Your task to perform on an android device: Open privacy settings Image 0: 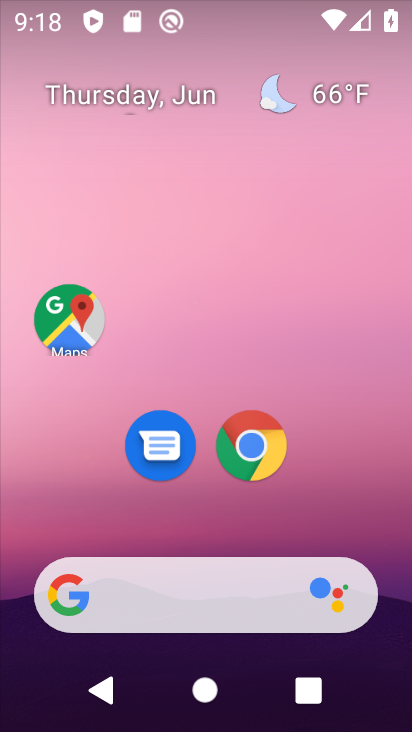
Step 0: drag from (189, 537) to (224, 1)
Your task to perform on an android device: Open privacy settings Image 1: 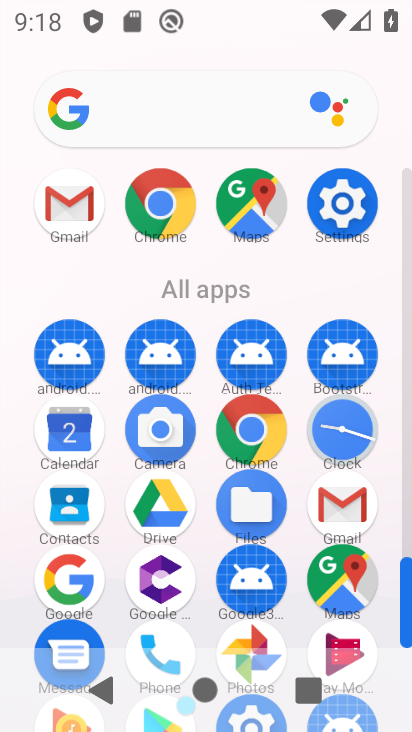
Step 1: click (350, 203)
Your task to perform on an android device: Open privacy settings Image 2: 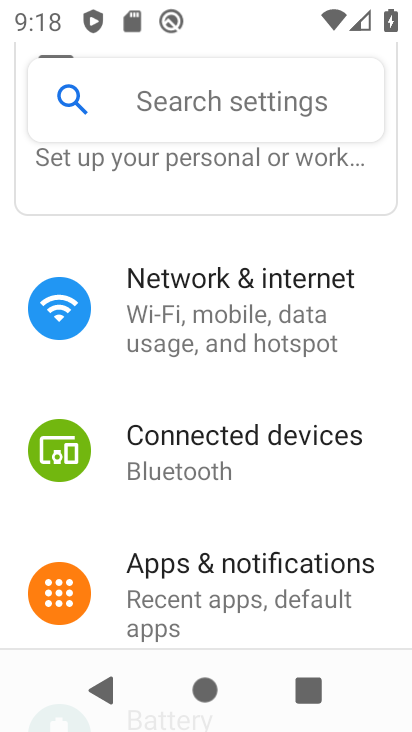
Step 2: drag from (258, 552) to (213, 301)
Your task to perform on an android device: Open privacy settings Image 3: 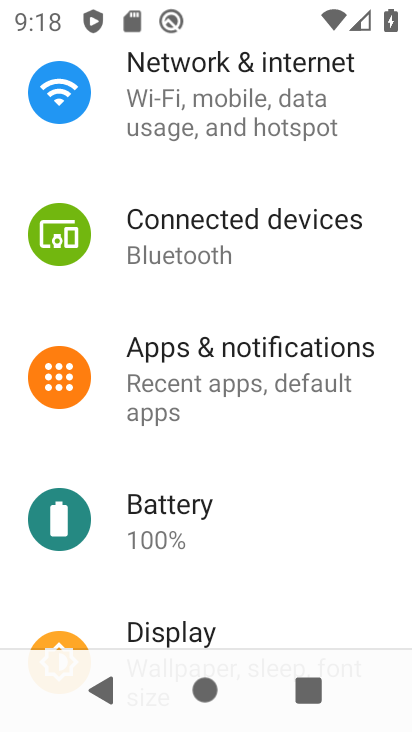
Step 3: drag from (231, 590) to (209, 274)
Your task to perform on an android device: Open privacy settings Image 4: 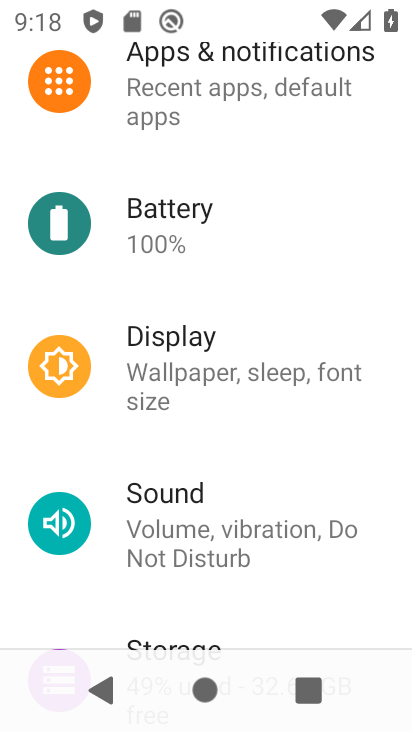
Step 4: drag from (217, 566) to (194, 412)
Your task to perform on an android device: Open privacy settings Image 5: 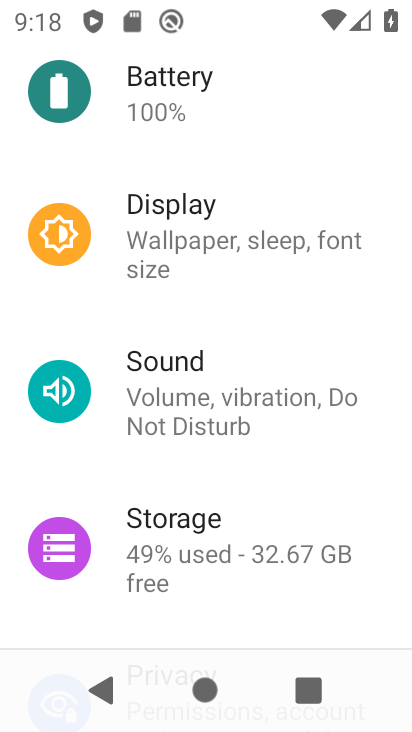
Step 5: drag from (150, 551) to (156, 313)
Your task to perform on an android device: Open privacy settings Image 6: 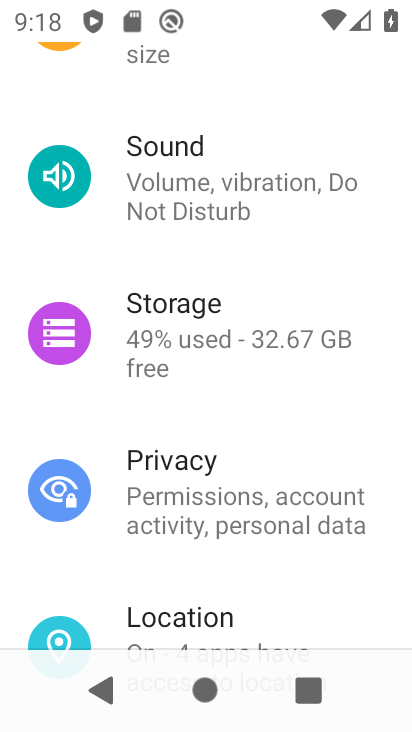
Step 6: drag from (169, 524) to (169, 318)
Your task to perform on an android device: Open privacy settings Image 7: 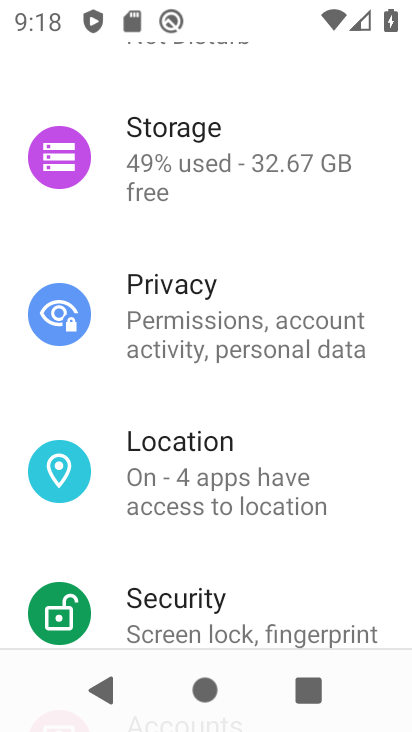
Step 7: click (160, 344)
Your task to perform on an android device: Open privacy settings Image 8: 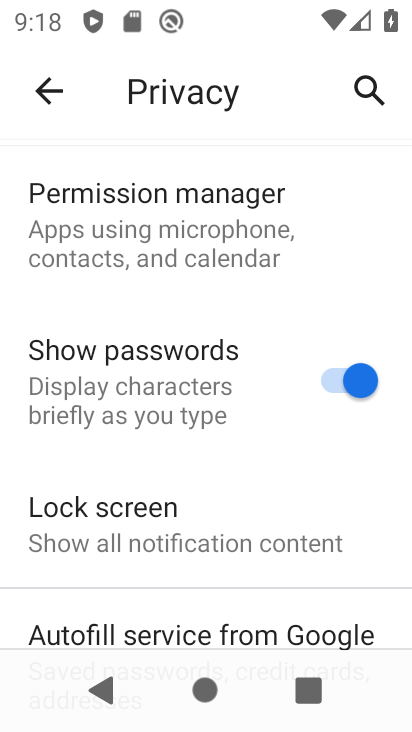
Step 8: task complete